Your task to perform on an android device: Open my contact list Image 0: 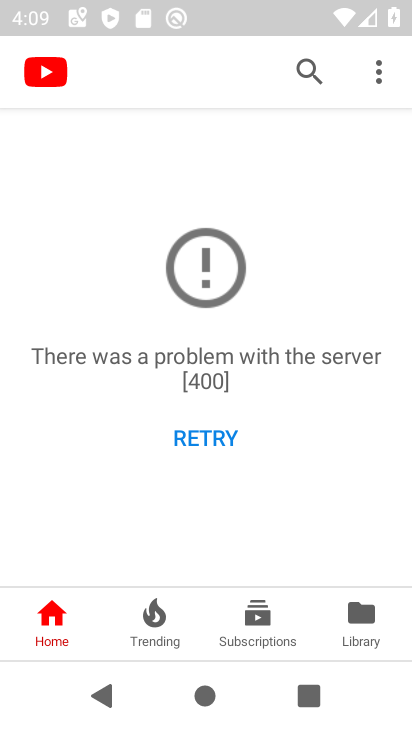
Step 0: press home button
Your task to perform on an android device: Open my contact list Image 1: 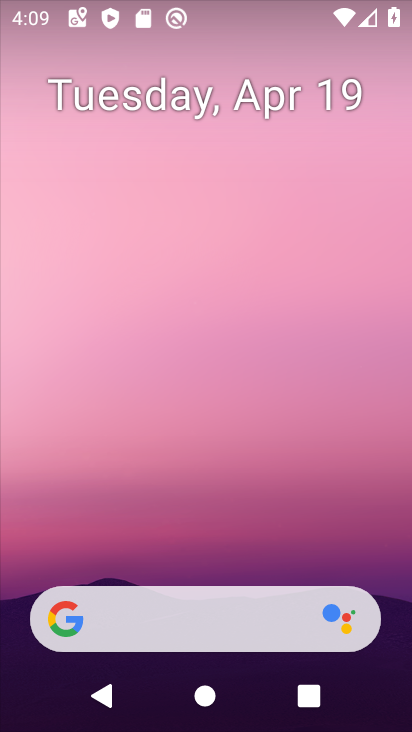
Step 1: drag from (204, 542) to (265, 76)
Your task to perform on an android device: Open my contact list Image 2: 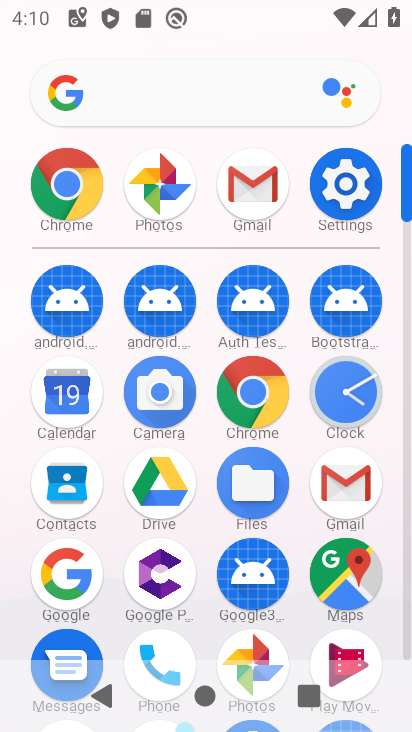
Step 2: click (63, 486)
Your task to perform on an android device: Open my contact list Image 3: 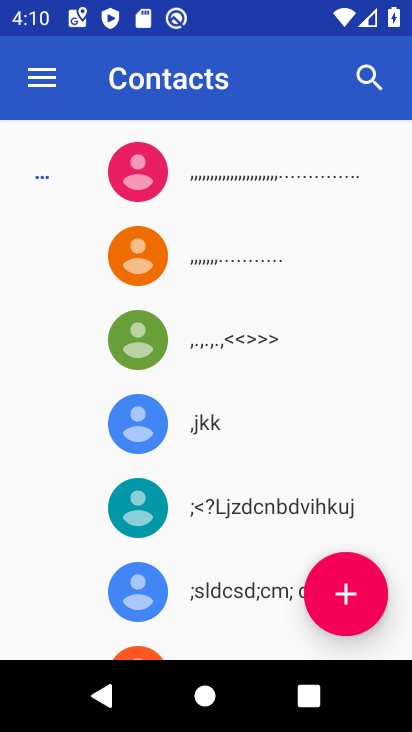
Step 3: task complete